Your task to perform on an android device: Open battery settings Image 0: 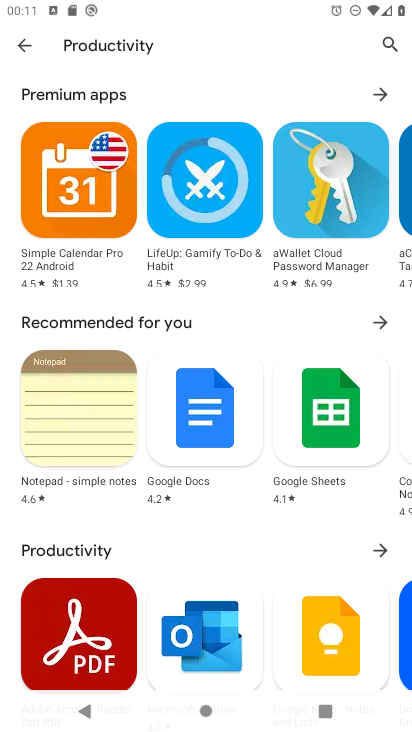
Step 0: press home button
Your task to perform on an android device: Open battery settings Image 1: 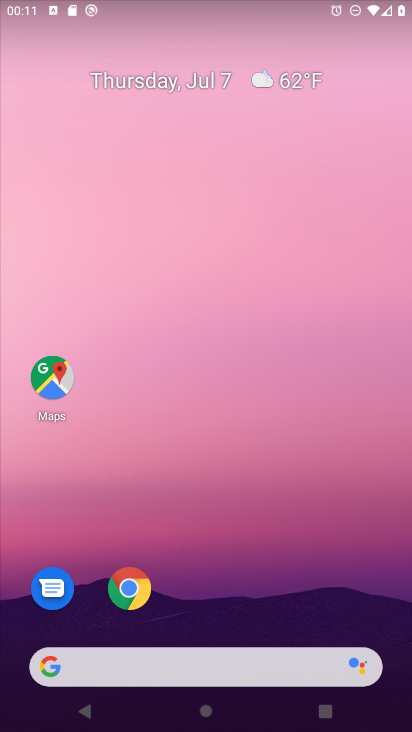
Step 1: drag from (361, 619) to (324, 55)
Your task to perform on an android device: Open battery settings Image 2: 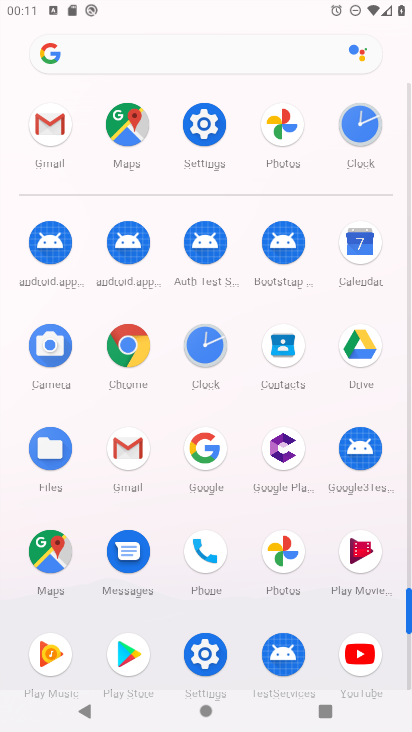
Step 2: click (202, 656)
Your task to perform on an android device: Open battery settings Image 3: 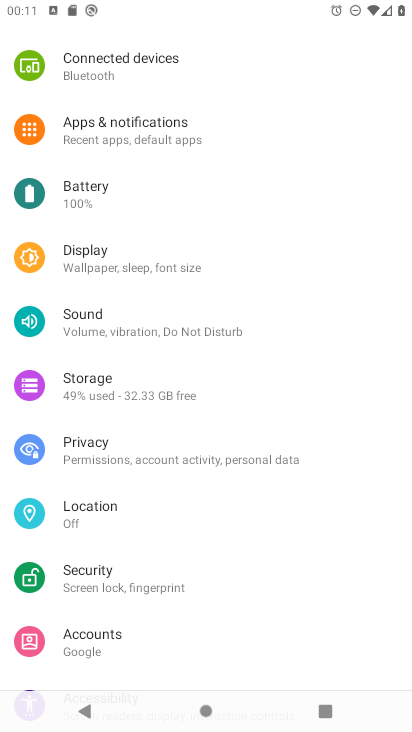
Step 3: click (79, 184)
Your task to perform on an android device: Open battery settings Image 4: 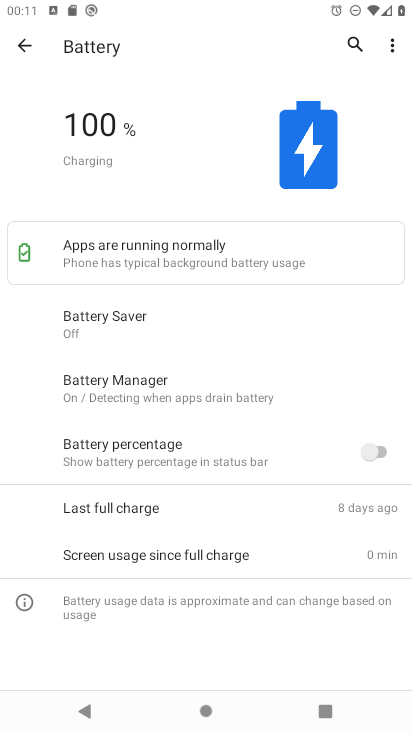
Step 4: task complete